Your task to perform on an android device: change the clock display to show seconds Image 0: 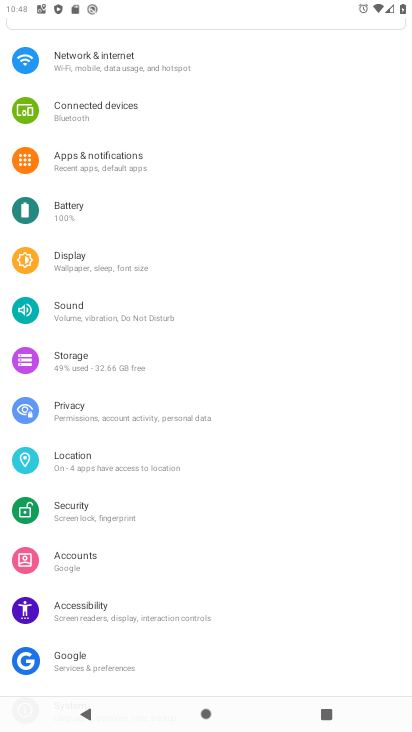
Step 0: press home button
Your task to perform on an android device: change the clock display to show seconds Image 1: 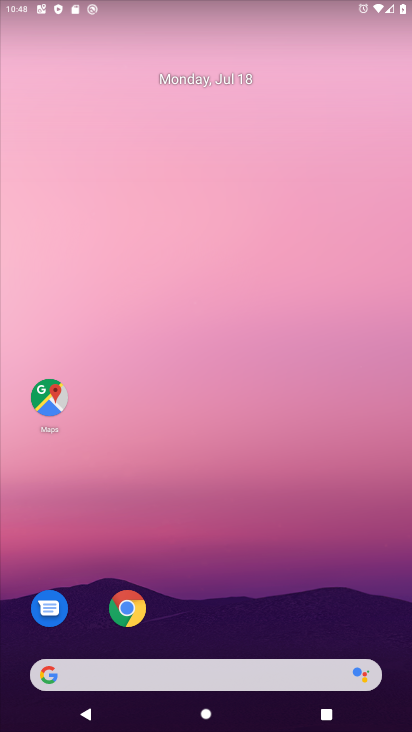
Step 1: drag from (222, 640) to (243, 166)
Your task to perform on an android device: change the clock display to show seconds Image 2: 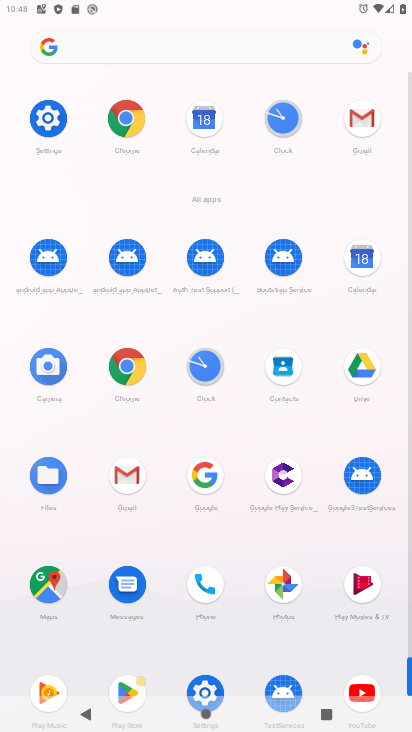
Step 2: click (214, 379)
Your task to perform on an android device: change the clock display to show seconds Image 3: 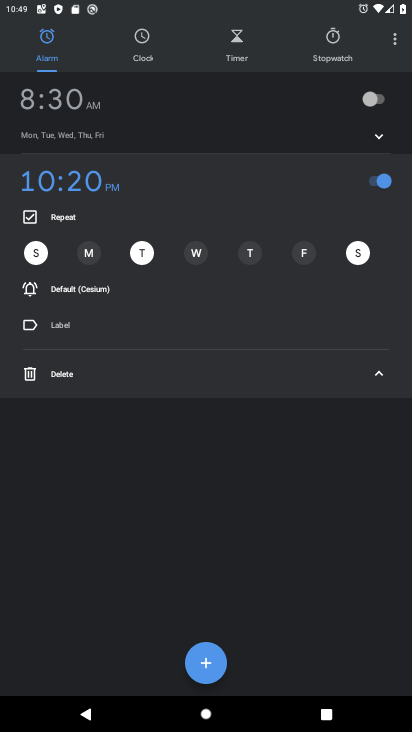
Step 3: click (393, 45)
Your task to perform on an android device: change the clock display to show seconds Image 4: 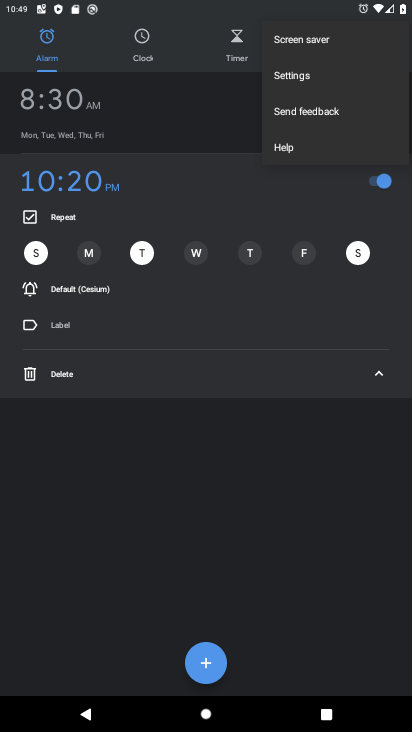
Step 4: click (286, 84)
Your task to perform on an android device: change the clock display to show seconds Image 5: 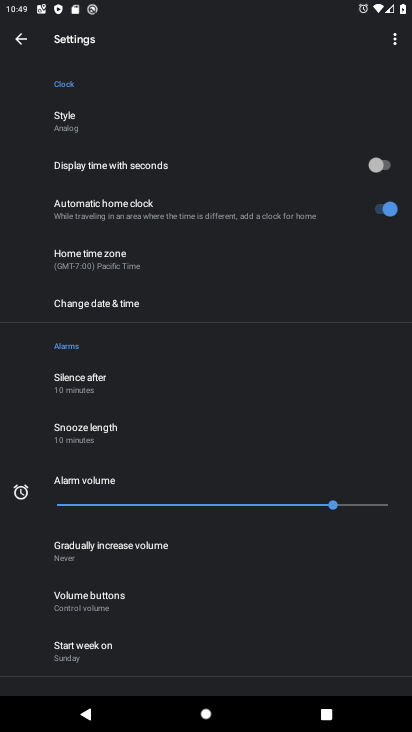
Step 5: click (74, 126)
Your task to perform on an android device: change the clock display to show seconds Image 6: 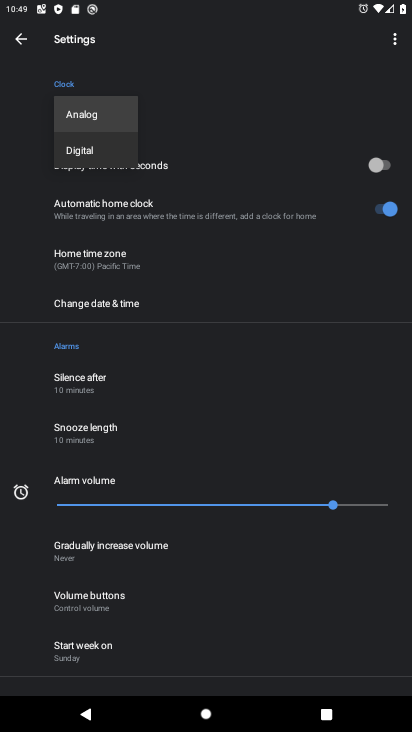
Step 6: click (94, 149)
Your task to perform on an android device: change the clock display to show seconds Image 7: 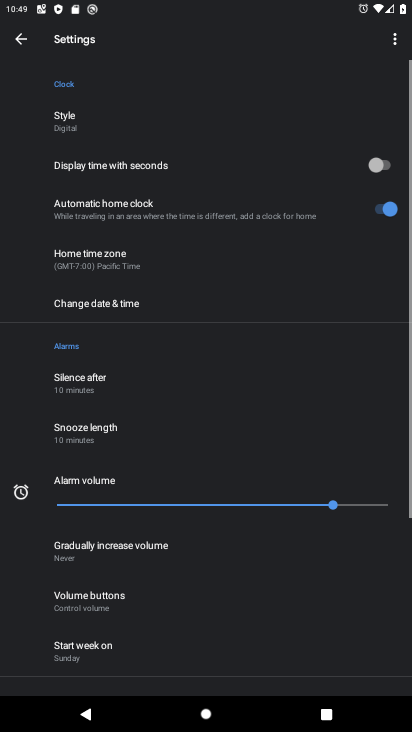
Step 7: click (393, 159)
Your task to perform on an android device: change the clock display to show seconds Image 8: 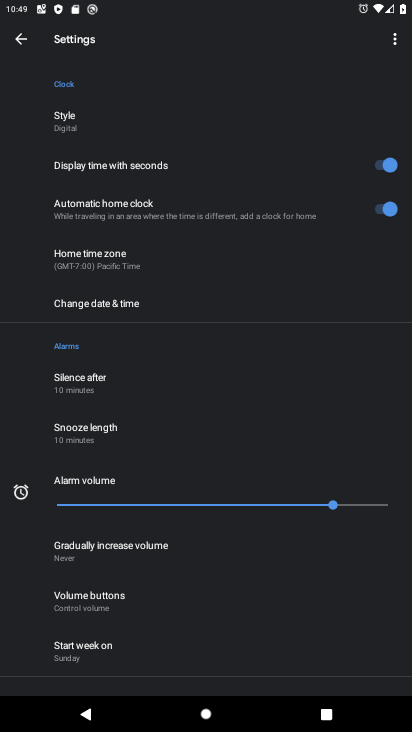
Step 8: task complete